Your task to perform on an android device: Go to ESPN.com Image 0: 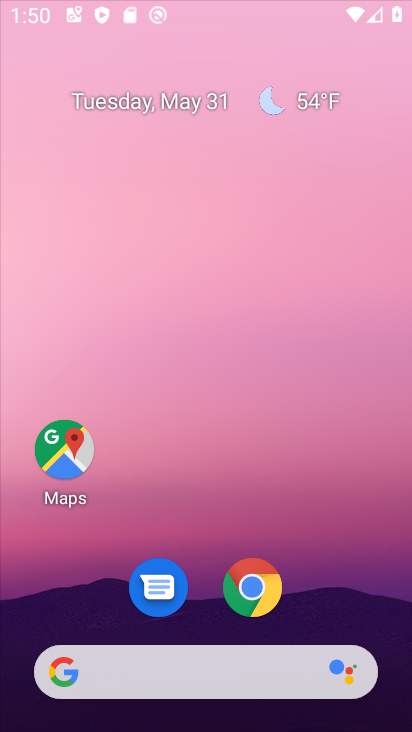
Step 0: click (149, 20)
Your task to perform on an android device: Go to ESPN.com Image 1: 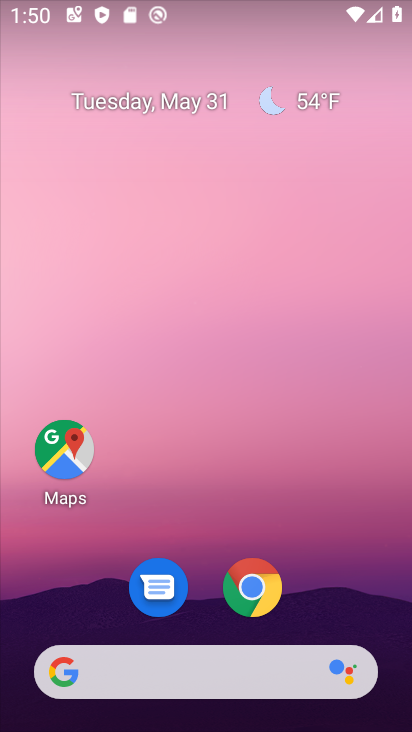
Step 1: drag from (229, 628) to (186, 23)
Your task to perform on an android device: Go to ESPN.com Image 2: 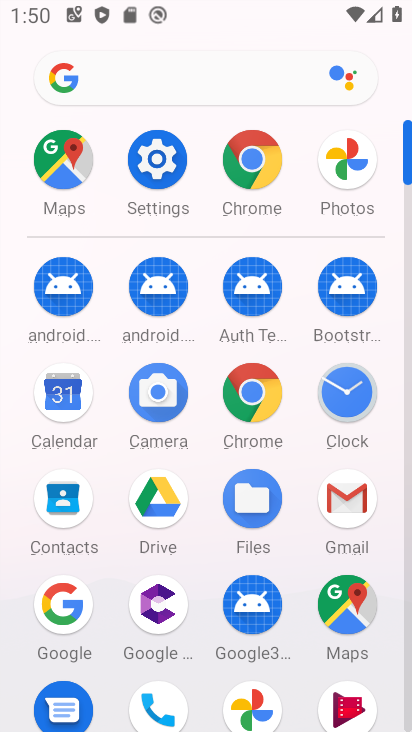
Step 2: click (188, 78)
Your task to perform on an android device: Go to ESPN.com Image 3: 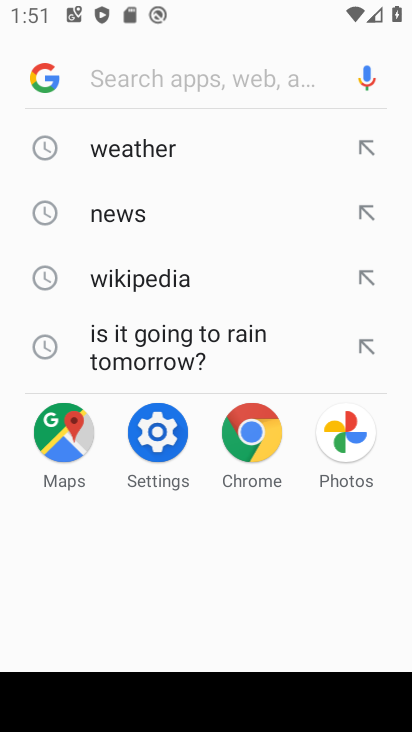
Step 3: click (120, 71)
Your task to perform on an android device: Go to ESPN.com Image 4: 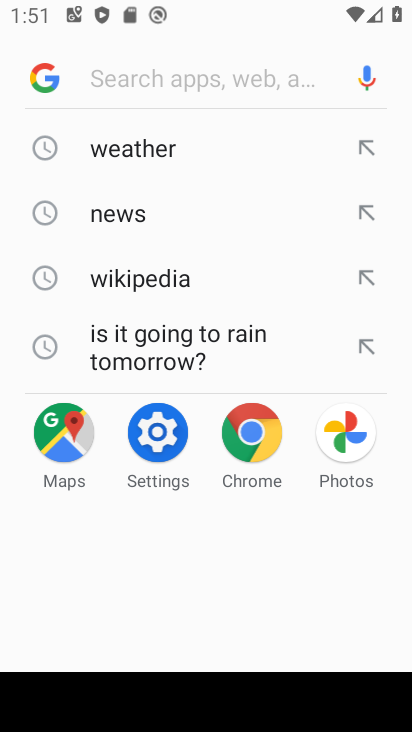
Step 4: type "ESPN.com"
Your task to perform on an android device: Go to ESPN.com Image 5: 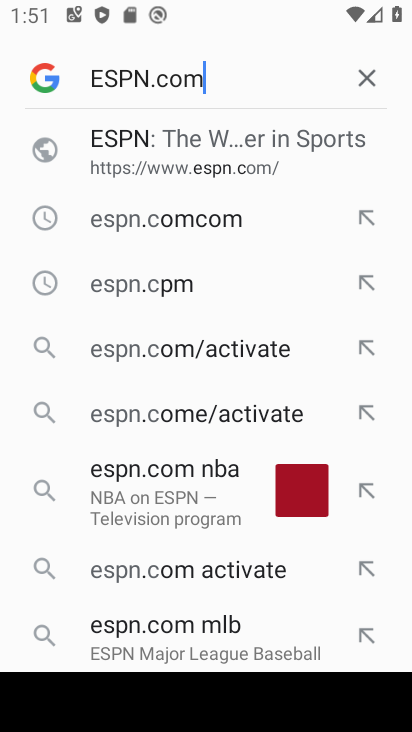
Step 5: type ""
Your task to perform on an android device: Go to ESPN.com Image 6: 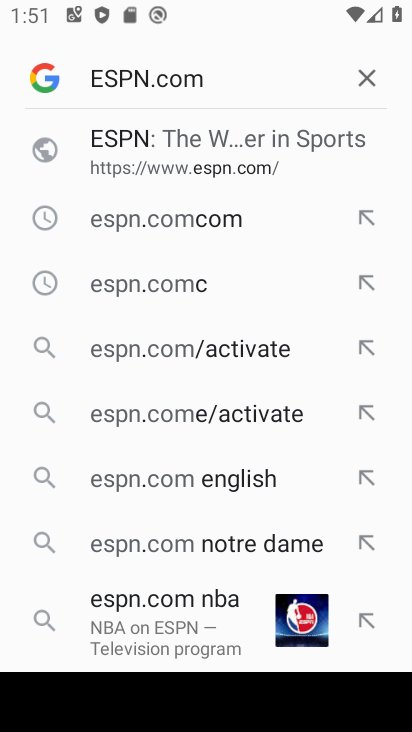
Step 6: click (168, 152)
Your task to perform on an android device: Go to ESPN.com Image 7: 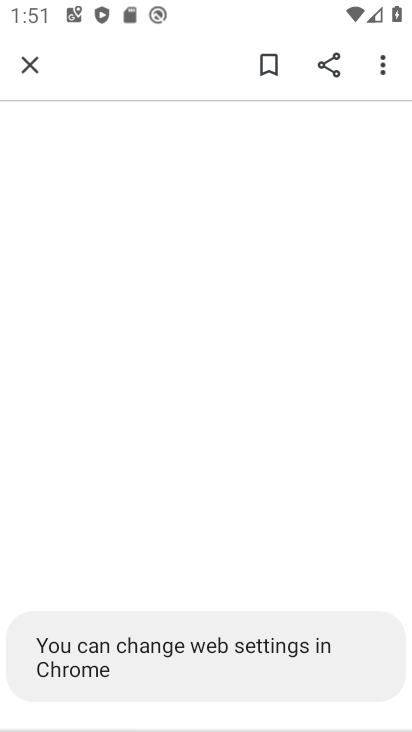
Step 7: task complete